Your task to perform on an android device: check out phone information Image 0: 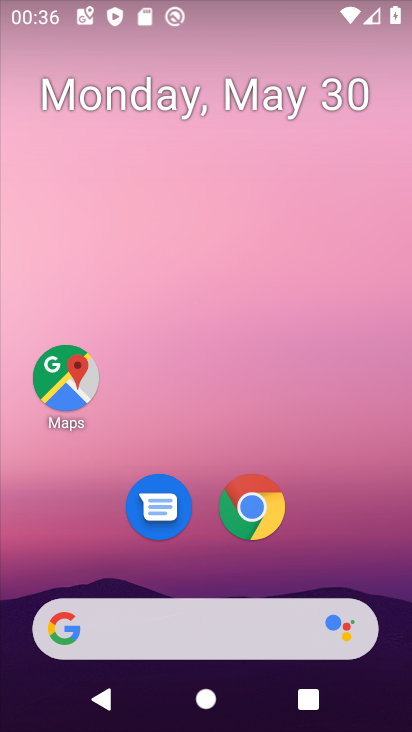
Step 0: drag from (318, 542) to (296, 180)
Your task to perform on an android device: check out phone information Image 1: 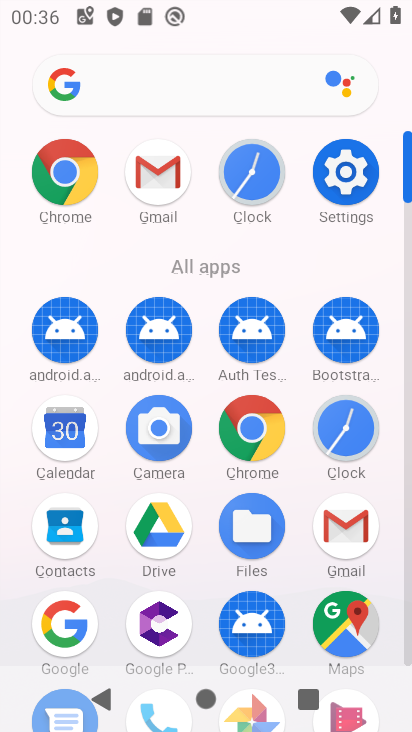
Step 1: click (342, 177)
Your task to perform on an android device: check out phone information Image 2: 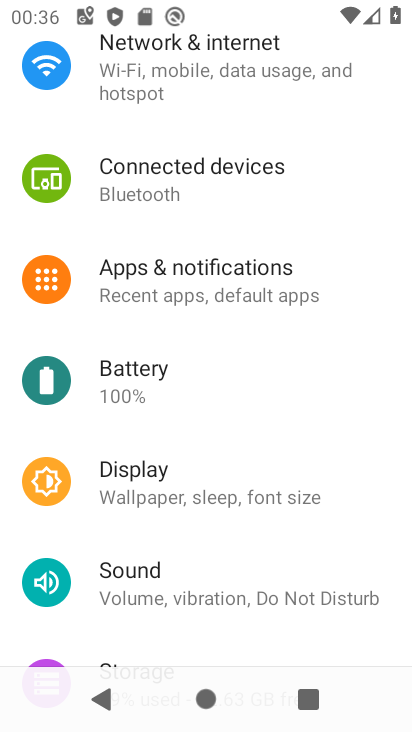
Step 2: drag from (243, 543) to (218, 206)
Your task to perform on an android device: check out phone information Image 3: 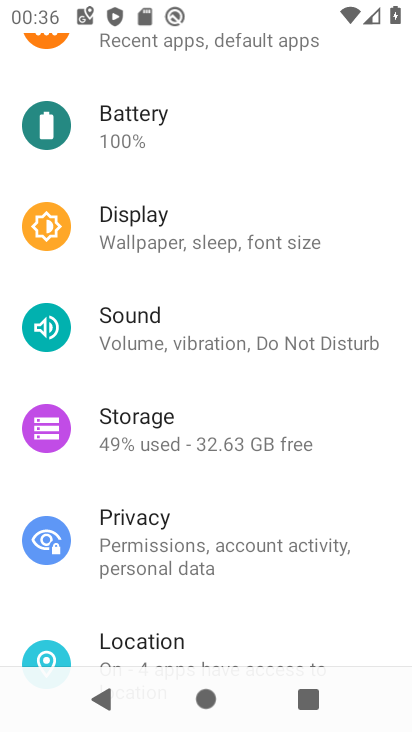
Step 3: drag from (228, 577) to (217, 241)
Your task to perform on an android device: check out phone information Image 4: 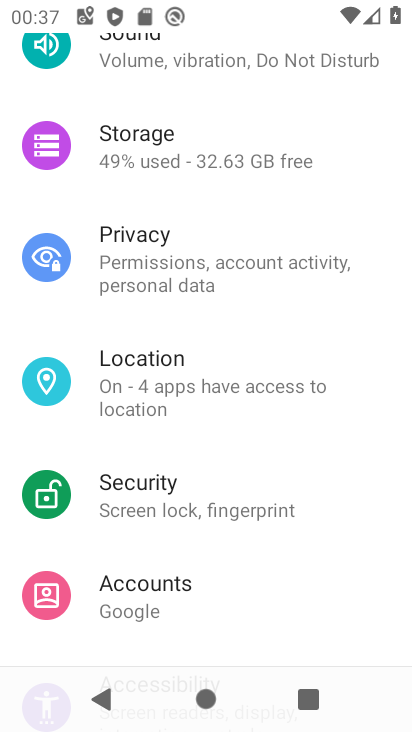
Step 4: drag from (210, 622) to (223, 189)
Your task to perform on an android device: check out phone information Image 5: 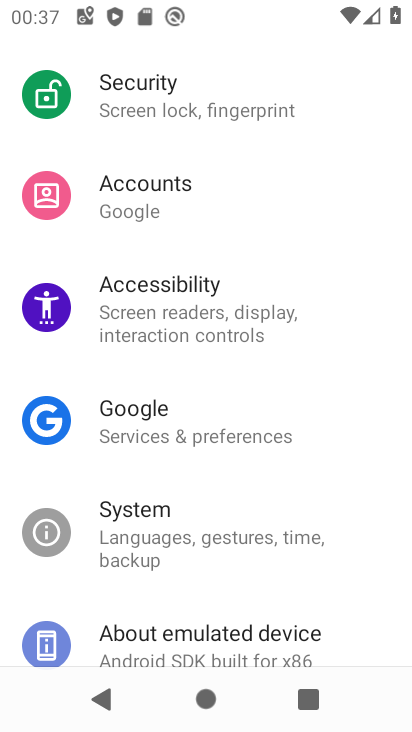
Step 5: drag from (258, 548) to (281, 295)
Your task to perform on an android device: check out phone information Image 6: 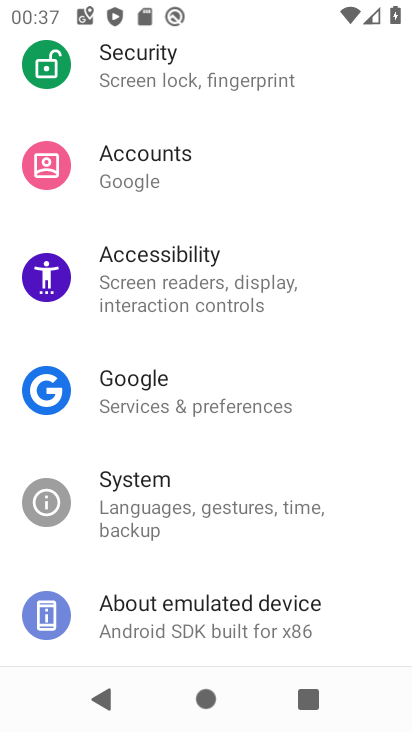
Step 6: click (221, 616)
Your task to perform on an android device: check out phone information Image 7: 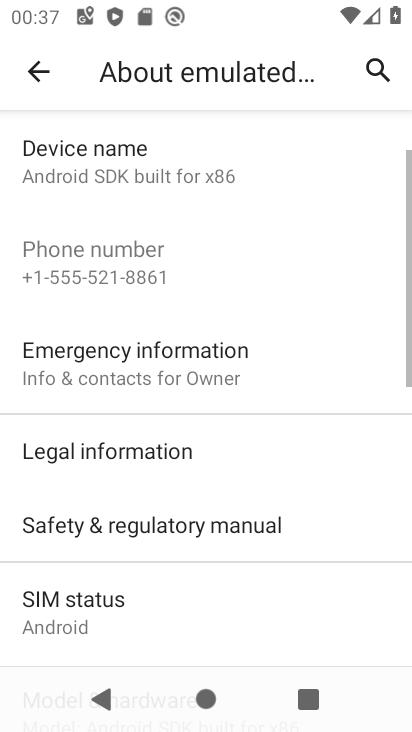
Step 7: task complete